Your task to perform on an android device: remove spam from my inbox in the gmail app Image 0: 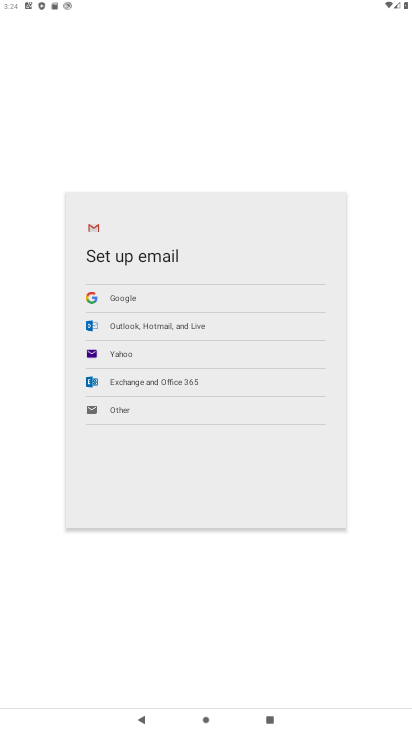
Step 0: press home button
Your task to perform on an android device: remove spam from my inbox in the gmail app Image 1: 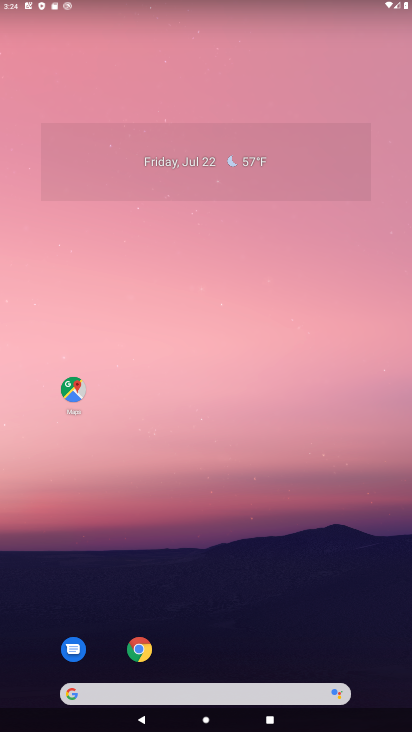
Step 1: drag from (0, 664) to (143, 11)
Your task to perform on an android device: remove spam from my inbox in the gmail app Image 2: 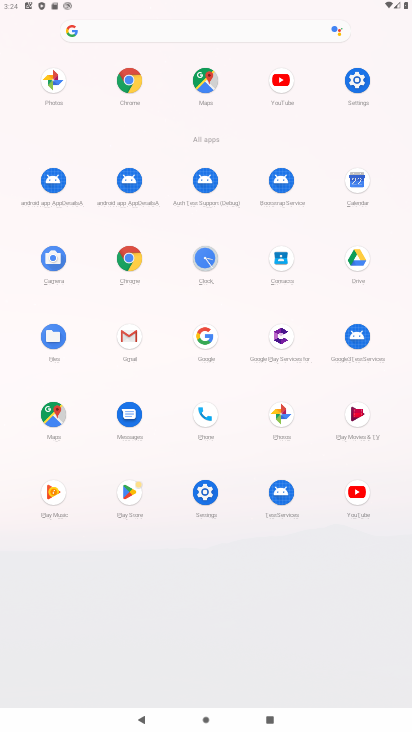
Step 2: click (131, 341)
Your task to perform on an android device: remove spam from my inbox in the gmail app Image 3: 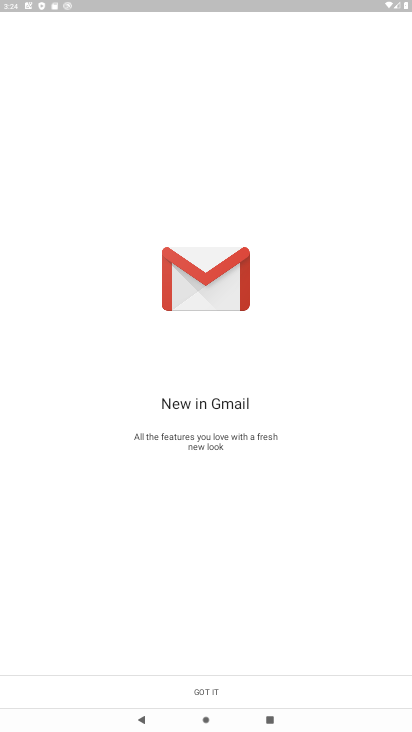
Step 3: click (202, 683)
Your task to perform on an android device: remove spam from my inbox in the gmail app Image 4: 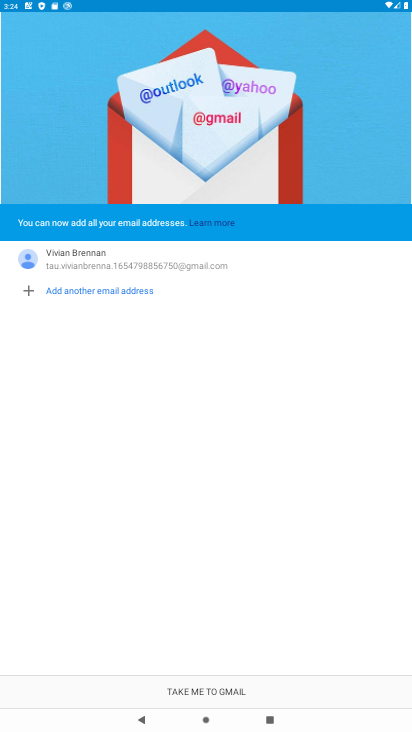
Step 4: click (208, 698)
Your task to perform on an android device: remove spam from my inbox in the gmail app Image 5: 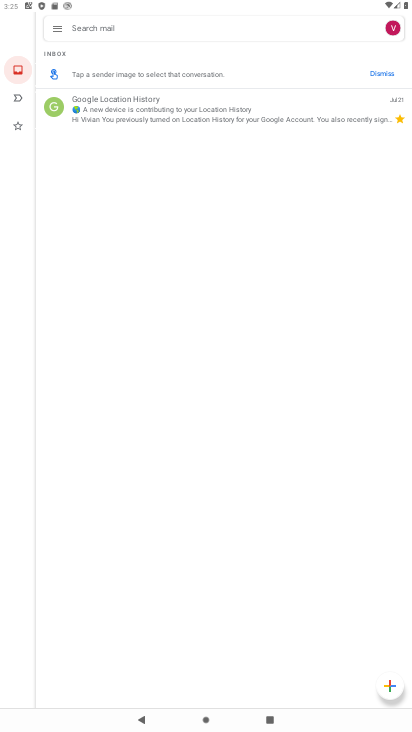
Step 5: click (60, 28)
Your task to perform on an android device: remove spam from my inbox in the gmail app Image 6: 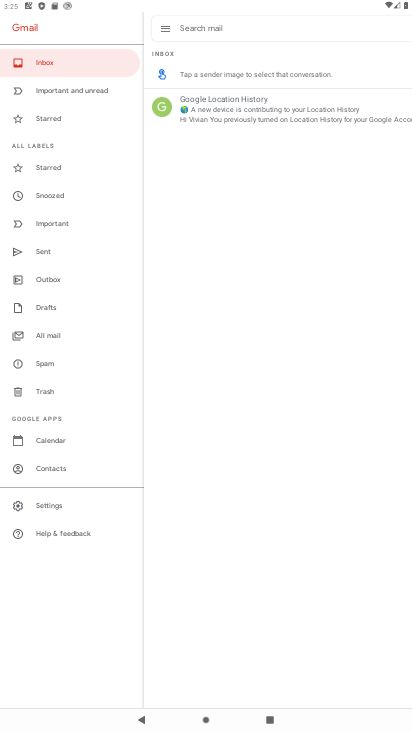
Step 6: click (39, 357)
Your task to perform on an android device: remove spam from my inbox in the gmail app Image 7: 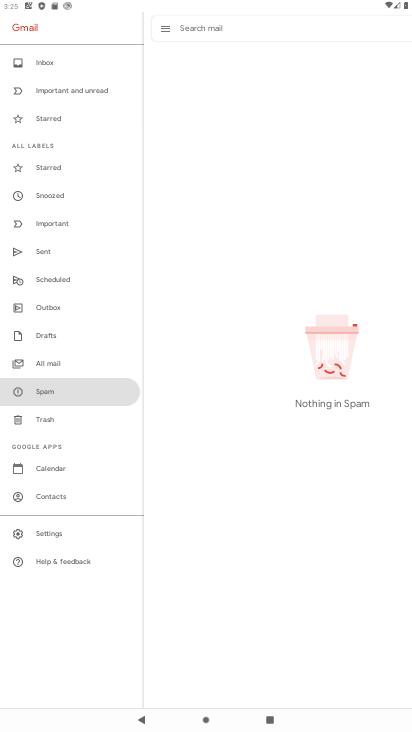
Step 7: task complete